Your task to perform on an android device: uninstall "Facebook" Image 0: 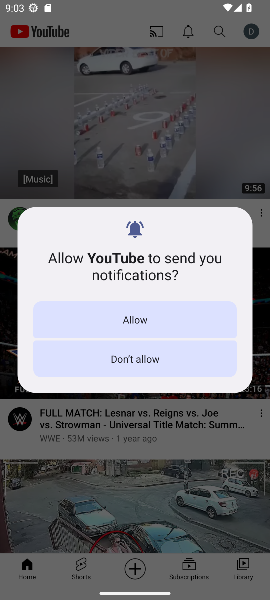
Step 0: drag from (200, 116) to (227, 501)
Your task to perform on an android device: uninstall "Facebook" Image 1: 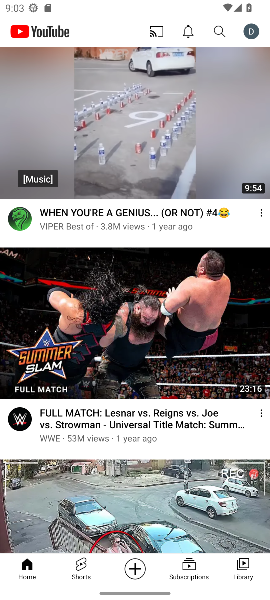
Step 1: press home button
Your task to perform on an android device: uninstall "Facebook" Image 2: 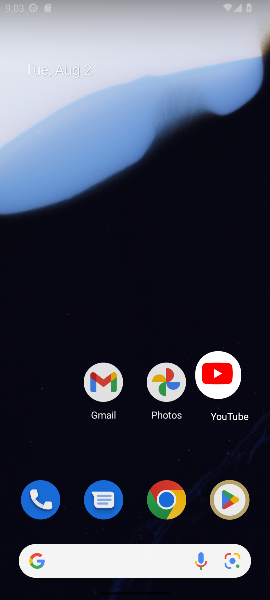
Step 2: drag from (149, 461) to (235, 64)
Your task to perform on an android device: uninstall "Facebook" Image 3: 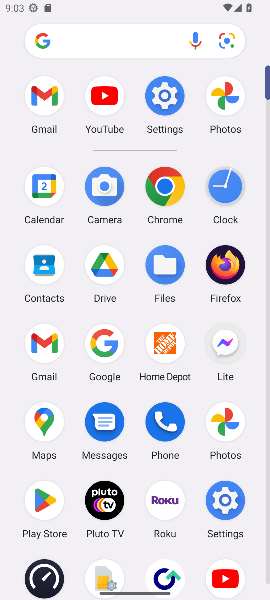
Step 3: click (44, 499)
Your task to perform on an android device: uninstall "Facebook" Image 4: 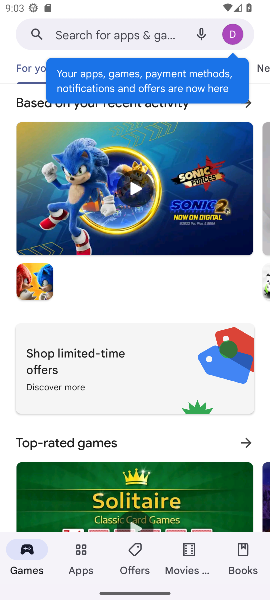
Step 4: drag from (101, 526) to (206, 124)
Your task to perform on an android device: uninstall "Facebook" Image 5: 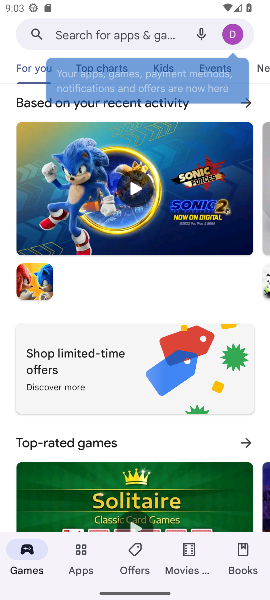
Step 5: drag from (103, 181) to (269, 581)
Your task to perform on an android device: uninstall "Facebook" Image 6: 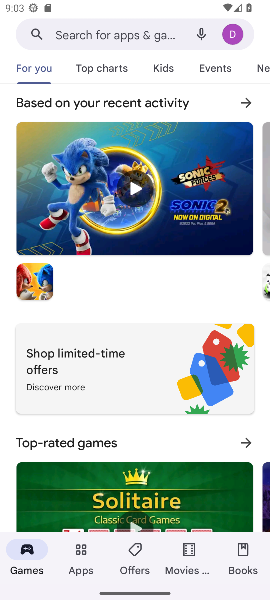
Step 6: click (84, 32)
Your task to perform on an android device: uninstall "Facebook" Image 7: 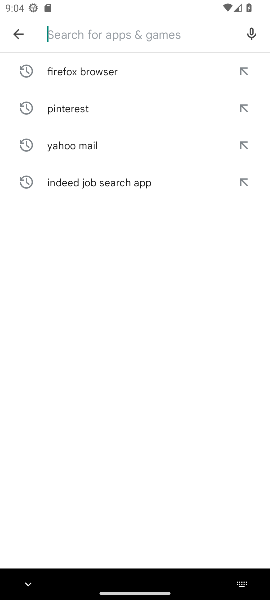
Step 7: type "Facebook"
Your task to perform on an android device: uninstall "Facebook" Image 8: 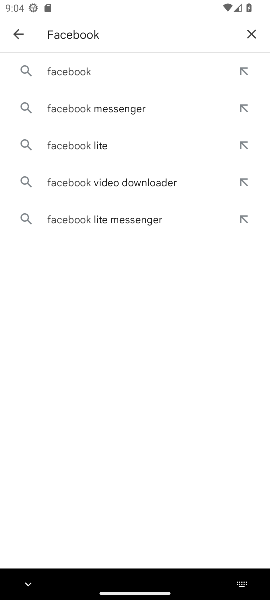
Step 8: click (51, 78)
Your task to perform on an android device: uninstall "Facebook" Image 9: 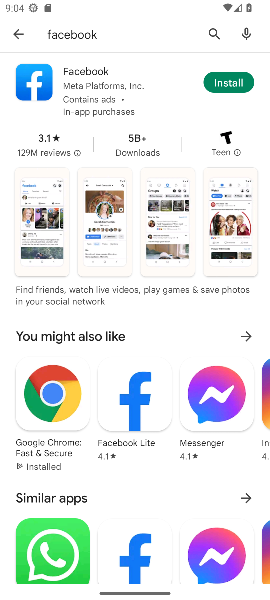
Step 9: click (69, 84)
Your task to perform on an android device: uninstall "Facebook" Image 10: 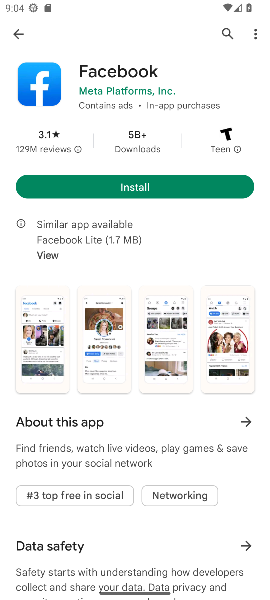
Step 10: task complete